Your task to perform on an android device: open app "ZOOM Cloud Meetings" Image 0: 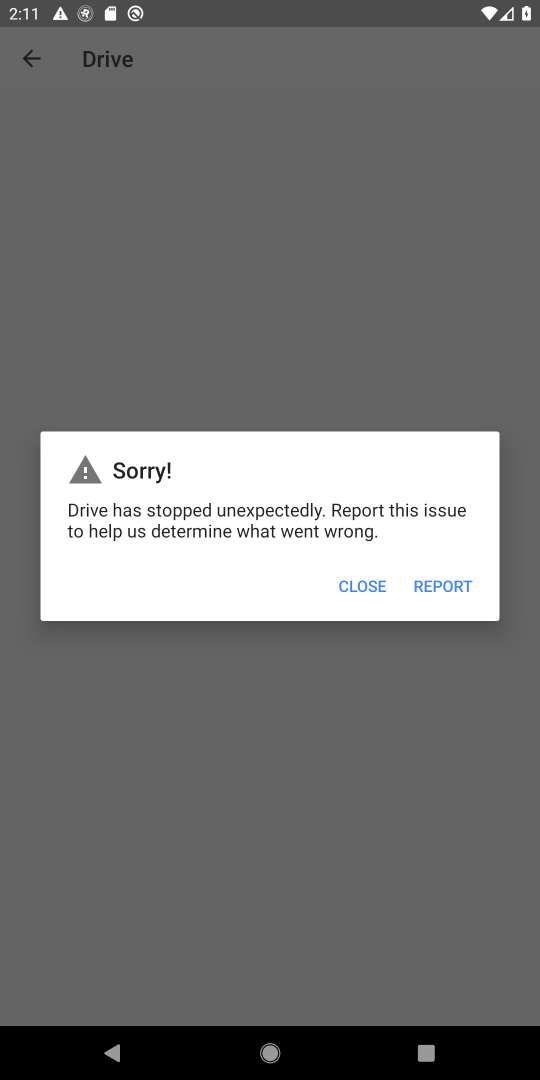
Step 0: press home button
Your task to perform on an android device: open app "ZOOM Cloud Meetings" Image 1: 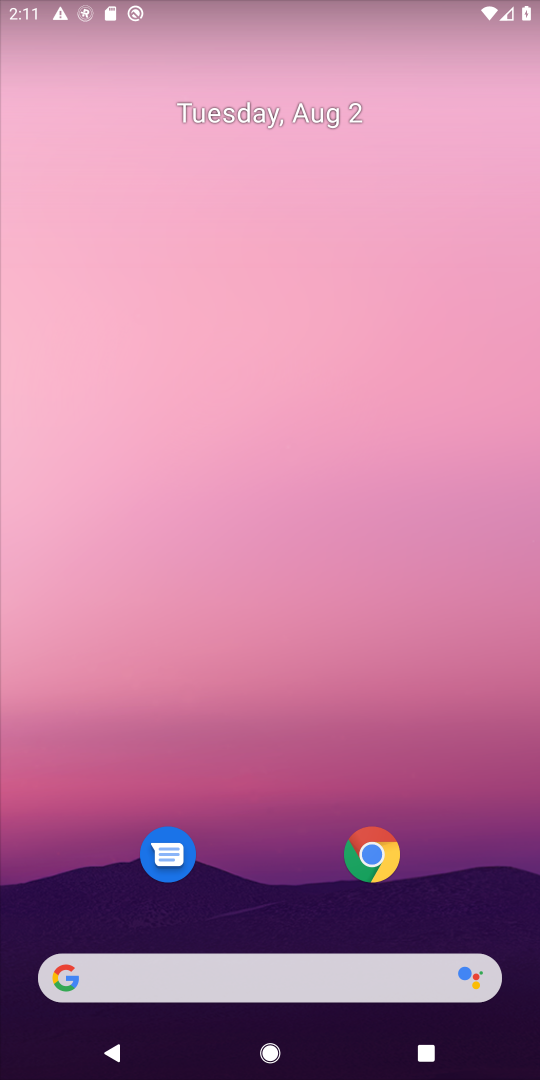
Step 1: drag from (309, 940) to (324, 139)
Your task to perform on an android device: open app "ZOOM Cloud Meetings" Image 2: 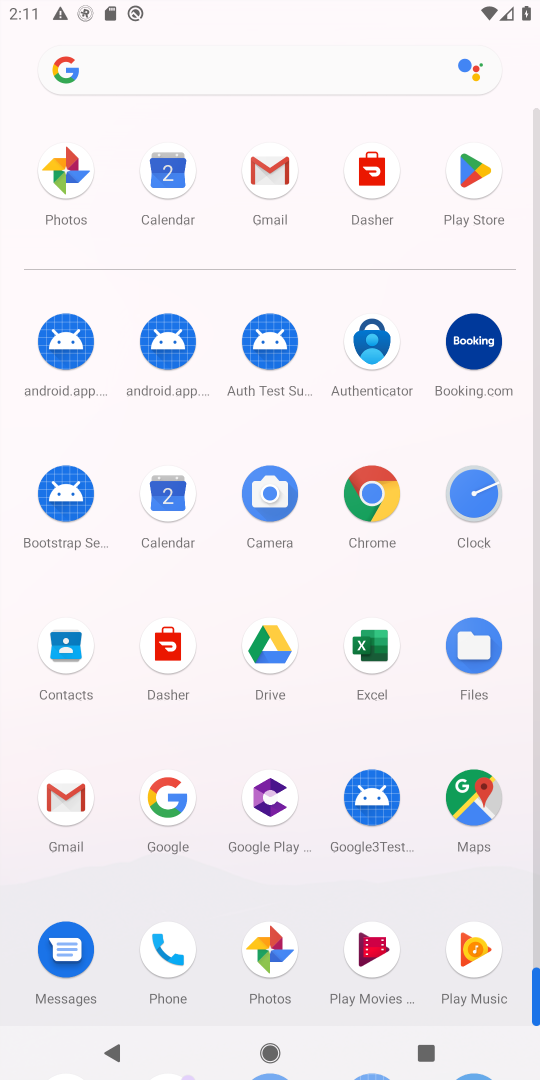
Step 2: click (465, 172)
Your task to perform on an android device: open app "ZOOM Cloud Meetings" Image 3: 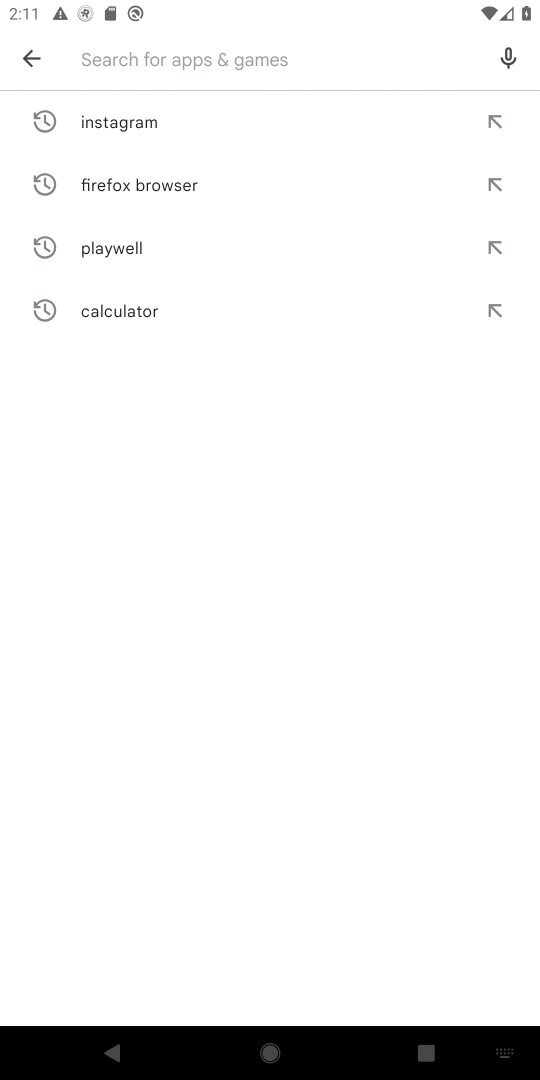
Step 3: type "ZOOM Cloud Meetings"
Your task to perform on an android device: open app "ZOOM Cloud Meetings" Image 4: 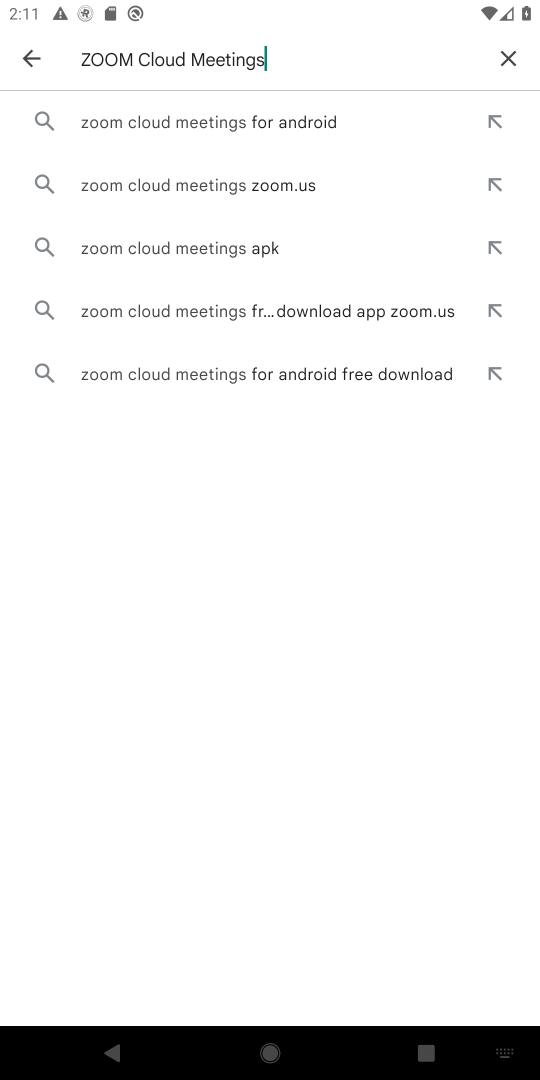
Step 4: click (178, 123)
Your task to perform on an android device: open app "ZOOM Cloud Meetings" Image 5: 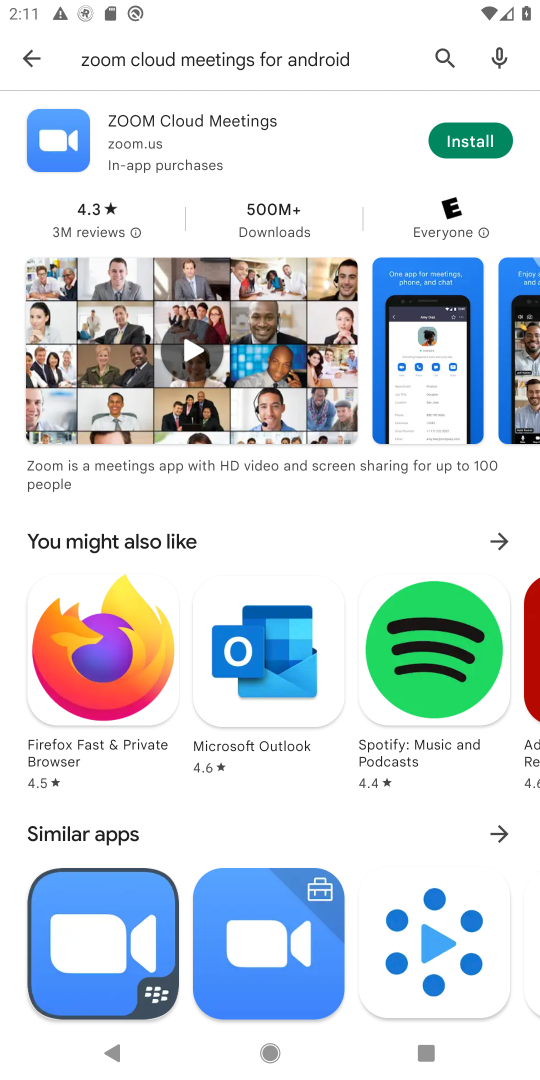
Step 5: task complete